Your task to perform on an android device: Open Reddit.com Image 0: 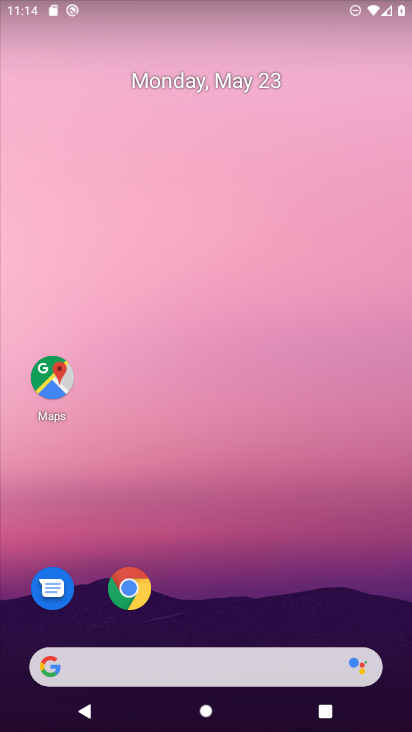
Step 0: click (134, 594)
Your task to perform on an android device: Open Reddit.com Image 1: 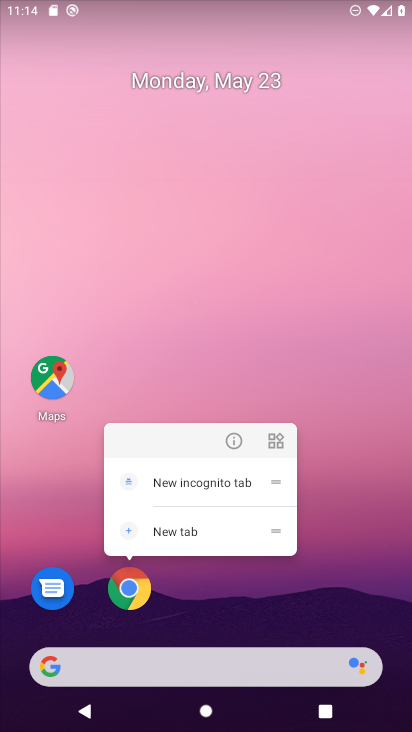
Step 1: click (133, 592)
Your task to perform on an android device: Open Reddit.com Image 2: 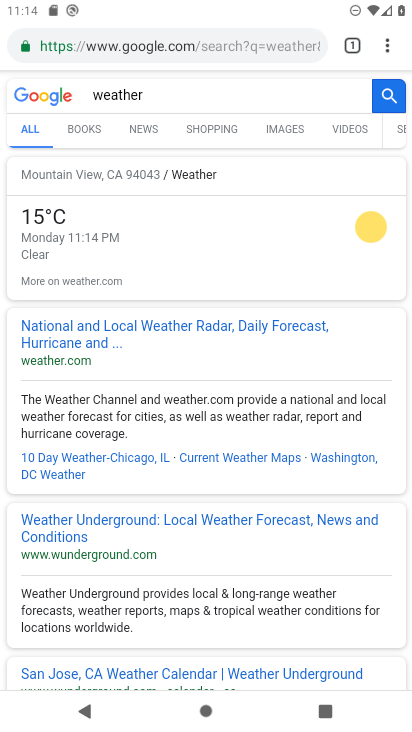
Step 2: click (245, 46)
Your task to perform on an android device: Open Reddit.com Image 3: 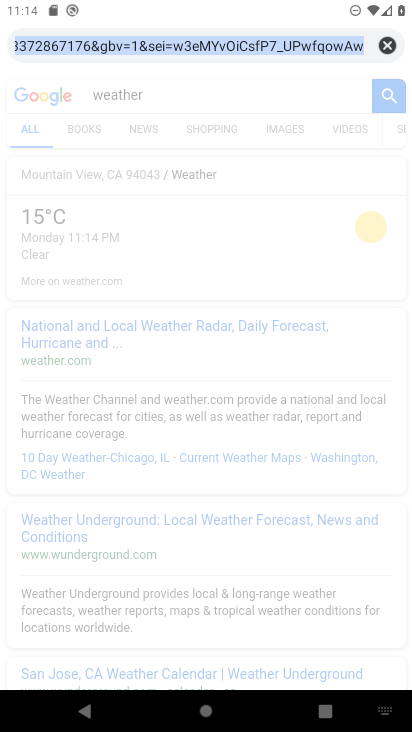
Step 3: type "reddit.com"
Your task to perform on an android device: Open Reddit.com Image 4: 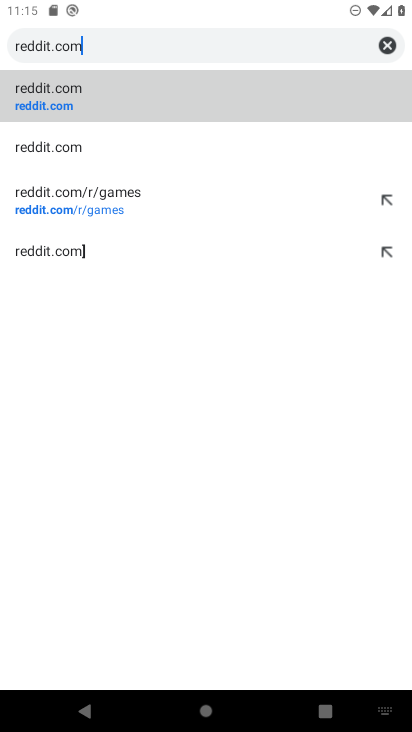
Step 4: click (51, 108)
Your task to perform on an android device: Open Reddit.com Image 5: 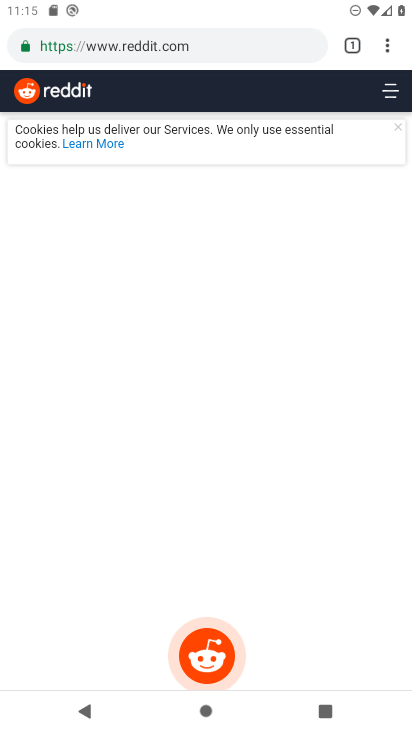
Step 5: task complete